Your task to perform on an android device: Turn off the flashlight Image 0: 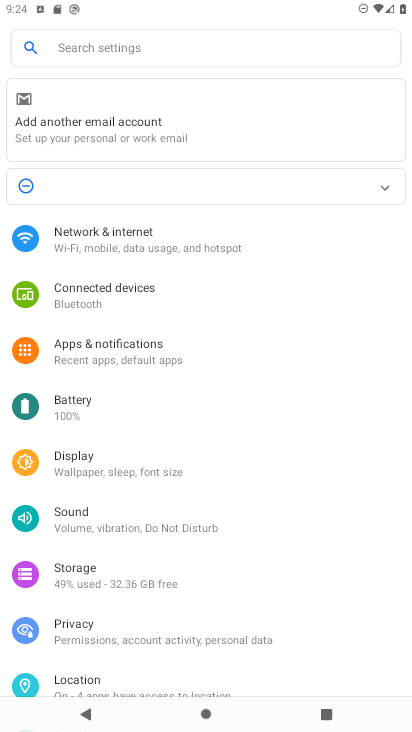
Step 0: task impossible